Your task to perform on an android device: Go to wifi settings Image 0: 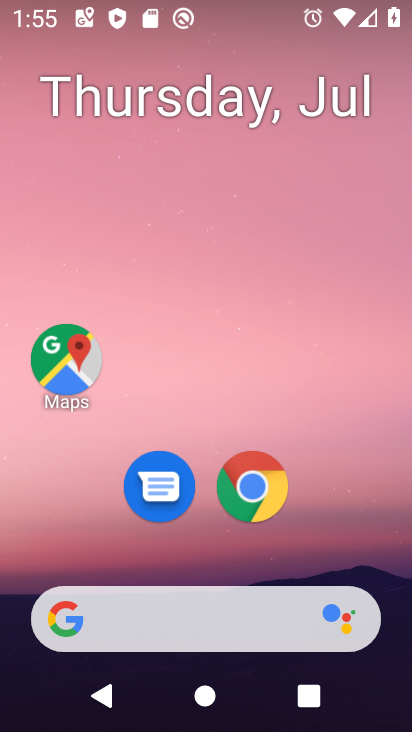
Step 0: drag from (91, 27) to (234, 568)
Your task to perform on an android device: Go to wifi settings Image 1: 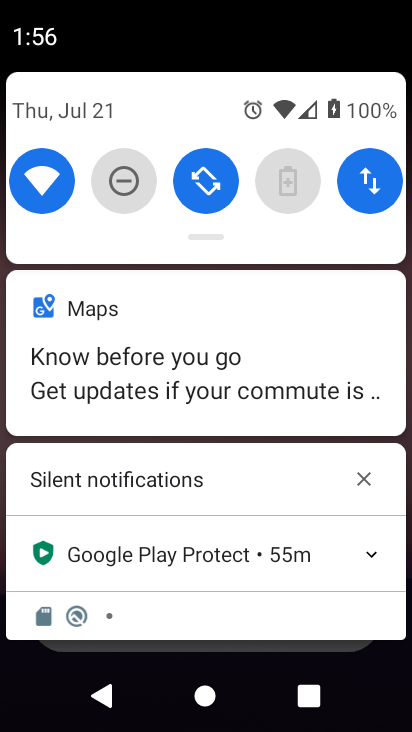
Step 1: click (42, 175)
Your task to perform on an android device: Go to wifi settings Image 2: 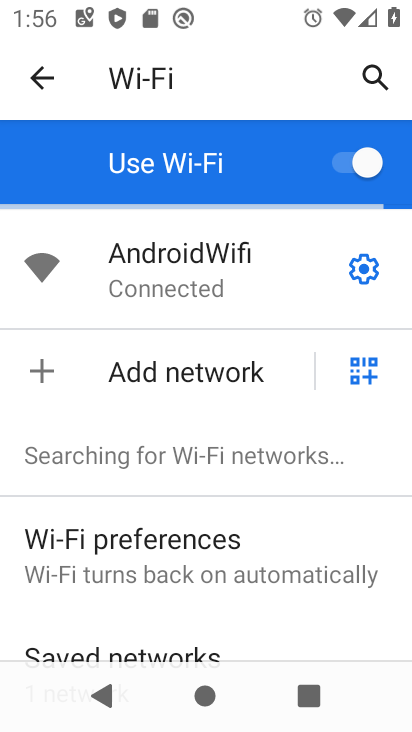
Step 2: task complete